Your task to perform on an android device: turn on sleep mode Image 0: 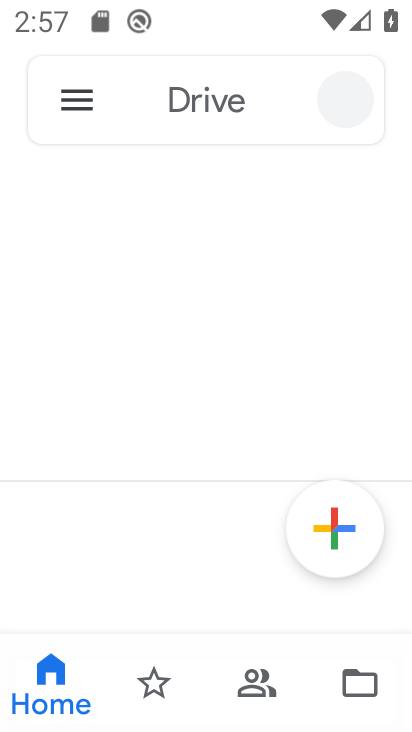
Step 0: drag from (340, 559) to (411, 551)
Your task to perform on an android device: turn on sleep mode Image 1: 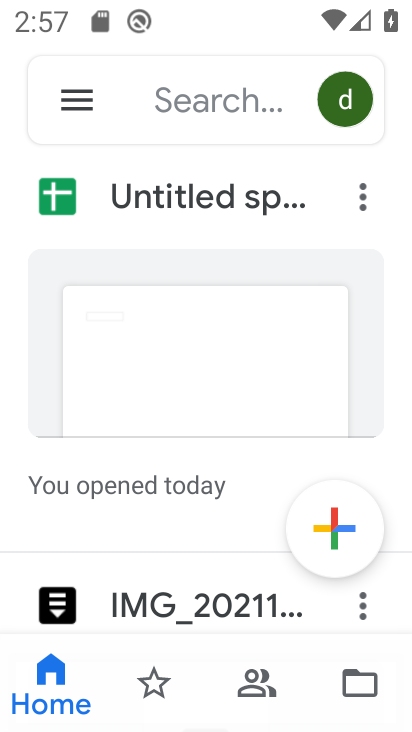
Step 1: press home button
Your task to perform on an android device: turn on sleep mode Image 2: 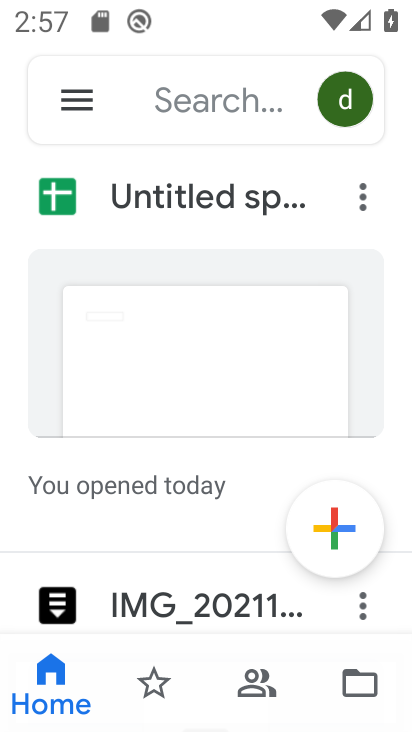
Step 2: click (411, 551)
Your task to perform on an android device: turn on sleep mode Image 3: 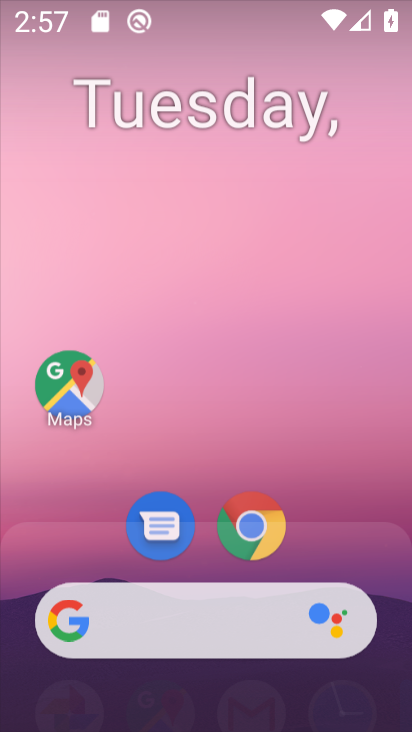
Step 3: drag from (345, 450) to (381, 123)
Your task to perform on an android device: turn on sleep mode Image 4: 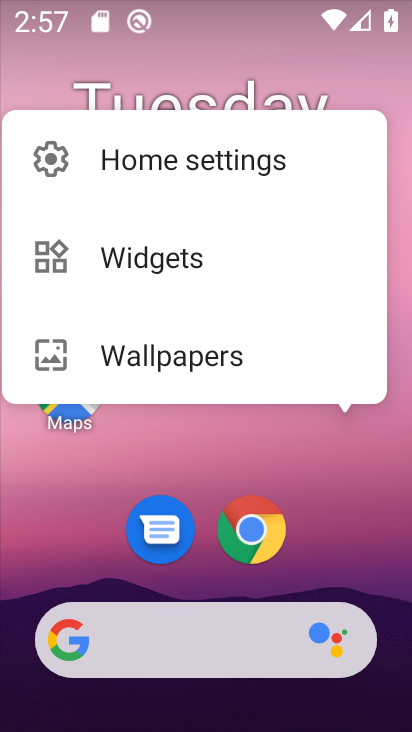
Step 4: drag from (303, 483) to (411, 40)
Your task to perform on an android device: turn on sleep mode Image 5: 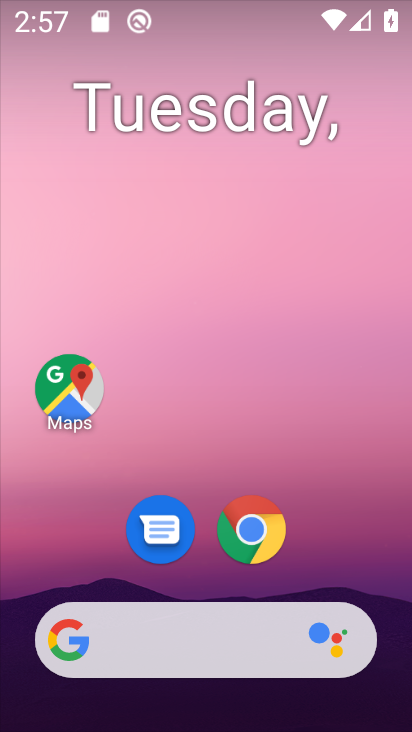
Step 5: drag from (283, 462) to (210, 5)
Your task to perform on an android device: turn on sleep mode Image 6: 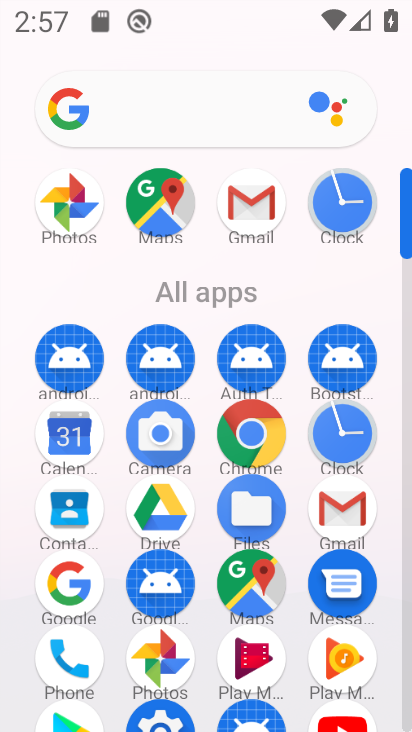
Step 6: click (52, 199)
Your task to perform on an android device: turn on sleep mode Image 7: 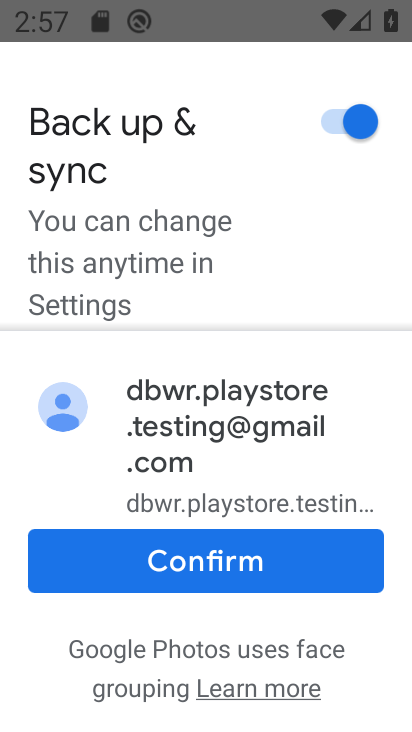
Step 7: click (192, 569)
Your task to perform on an android device: turn on sleep mode Image 8: 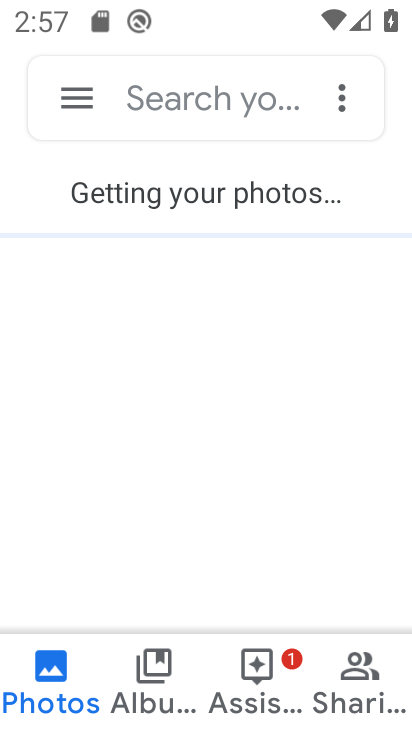
Step 8: press home button
Your task to perform on an android device: turn on sleep mode Image 9: 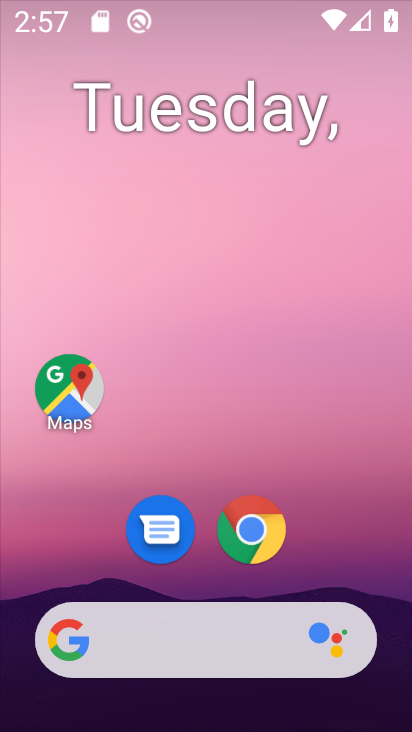
Step 9: drag from (315, 539) to (351, 195)
Your task to perform on an android device: turn on sleep mode Image 10: 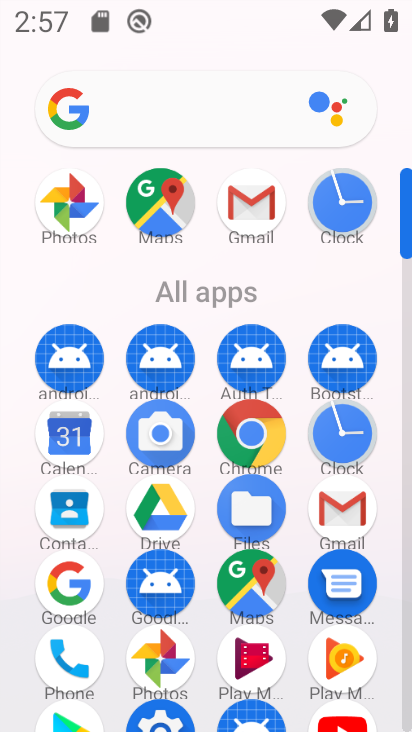
Step 10: drag from (106, 651) to (140, 391)
Your task to perform on an android device: turn on sleep mode Image 11: 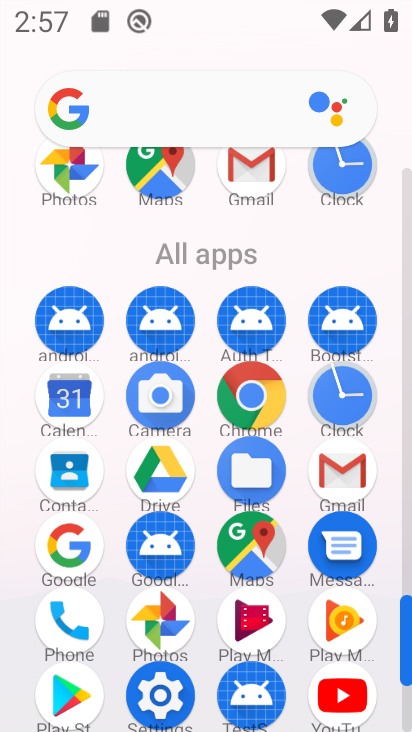
Step 11: click (153, 675)
Your task to perform on an android device: turn on sleep mode Image 12: 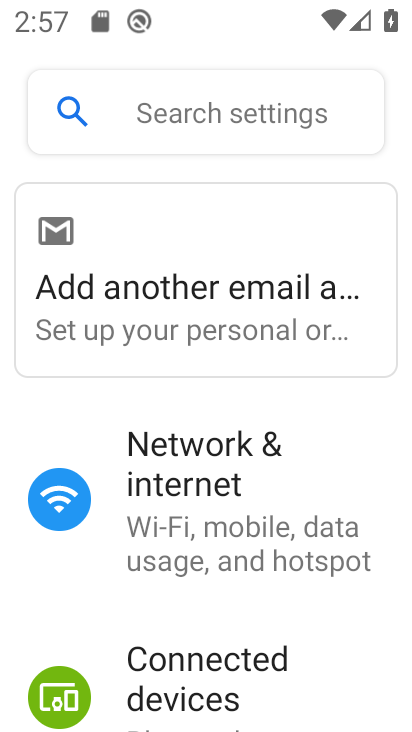
Step 12: drag from (324, 685) to (297, 94)
Your task to perform on an android device: turn on sleep mode Image 13: 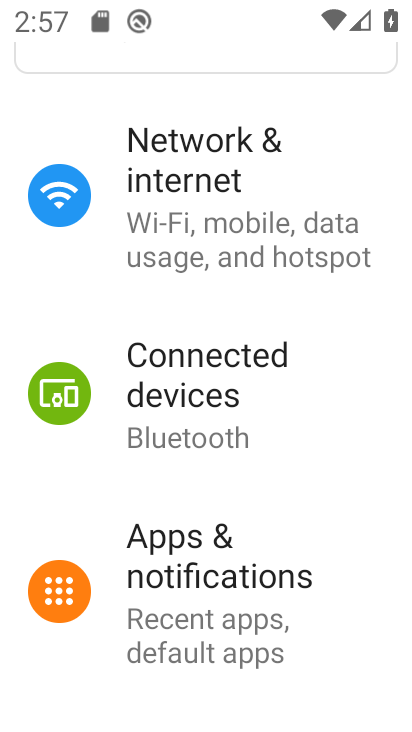
Step 13: drag from (314, 670) to (315, 140)
Your task to perform on an android device: turn on sleep mode Image 14: 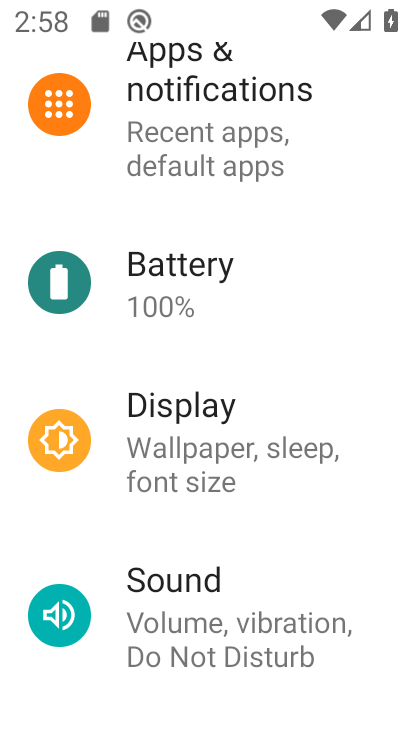
Step 14: click (243, 425)
Your task to perform on an android device: turn on sleep mode Image 15: 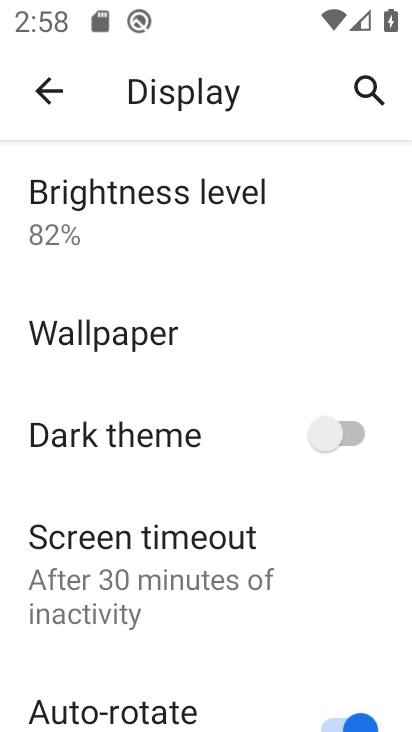
Step 15: drag from (233, 682) to (246, 211)
Your task to perform on an android device: turn on sleep mode Image 16: 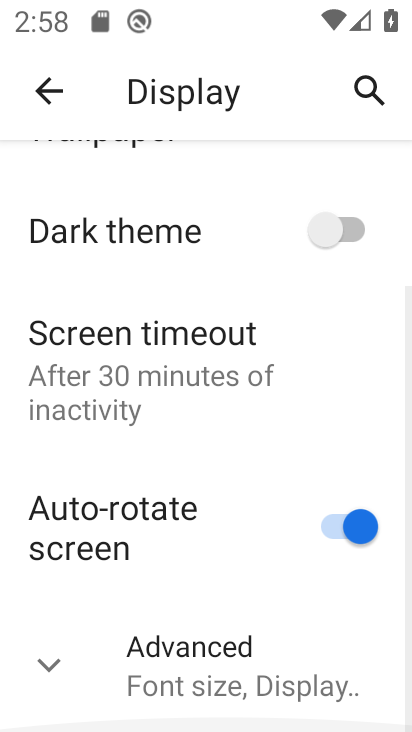
Step 16: click (89, 657)
Your task to perform on an android device: turn on sleep mode Image 17: 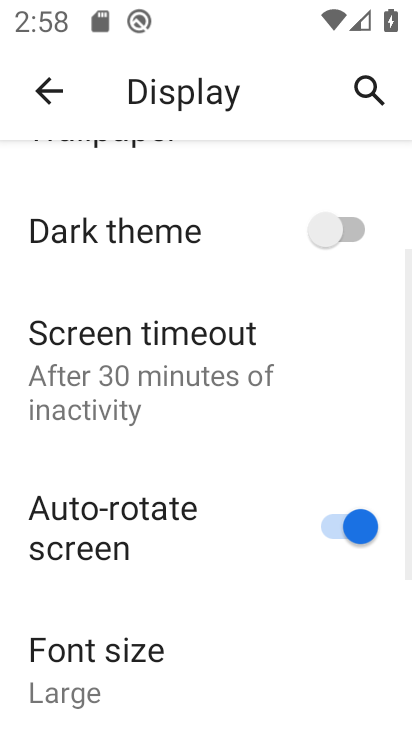
Step 17: click (99, 677)
Your task to perform on an android device: turn on sleep mode Image 18: 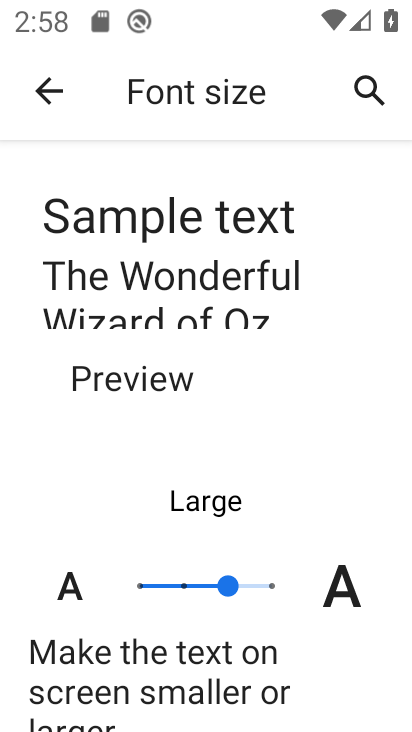
Step 18: click (186, 585)
Your task to perform on an android device: turn on sleep mode Image 19: 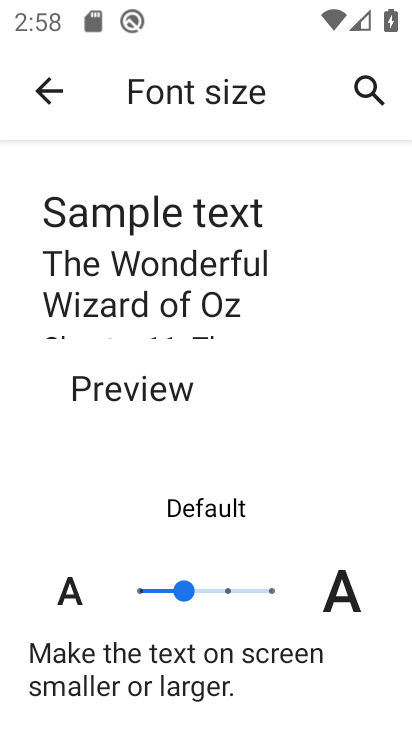
Step 19: task complete